Your task to perform on an android device: turn off improve location accuracy Image 0: 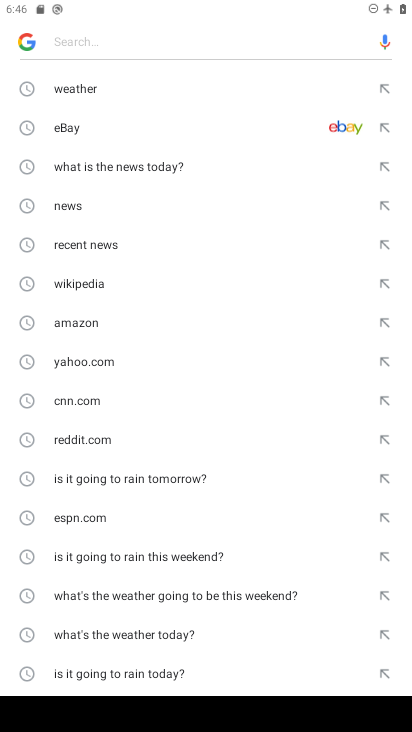
Step 0: press home button
Your task to perform on an android device: turn off improve location accuracy Image 1: 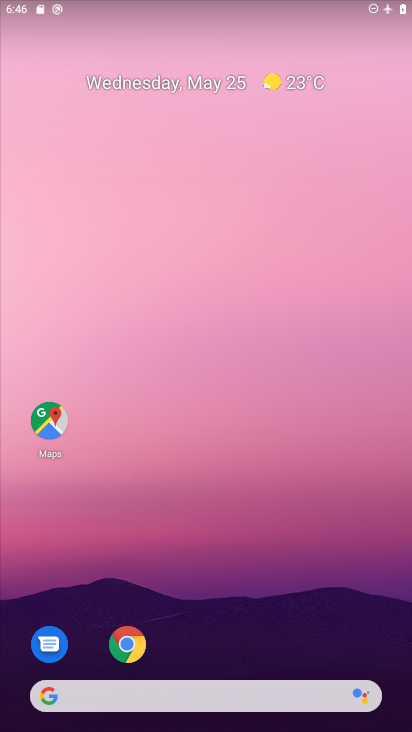
Step 1: drag from (355, 652) to (264, 38)
Your task to perform on an android device: turn off improve location accuracy Image 2: 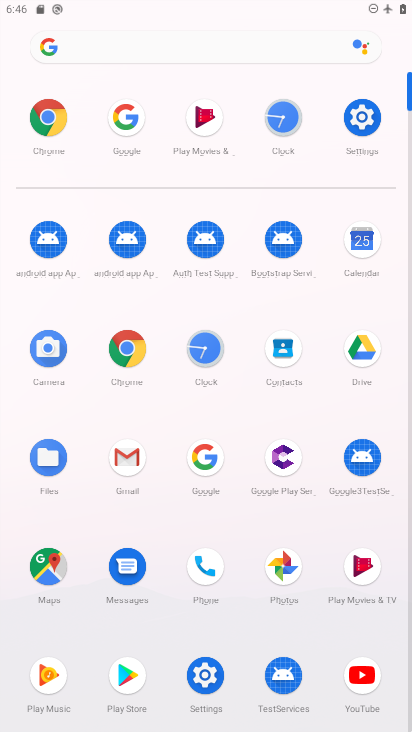
Step 2: click (366, 124)
Your task to perform on an android device: turn off improve location accuracy Image 3: 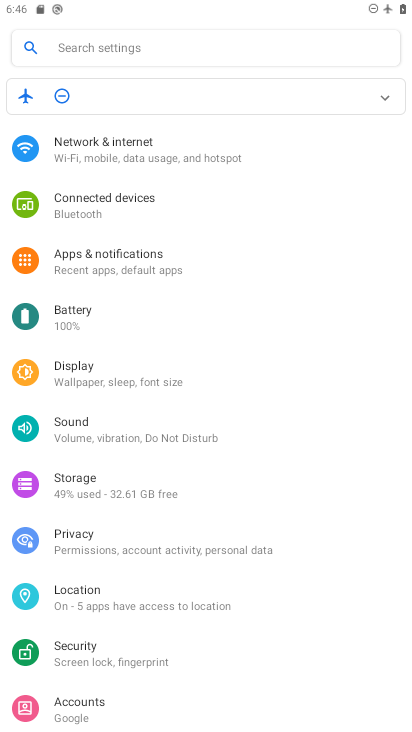
Step 3: click (120, 594)
Your task to perform on an android device: turn off improve location accuracy Image 4: 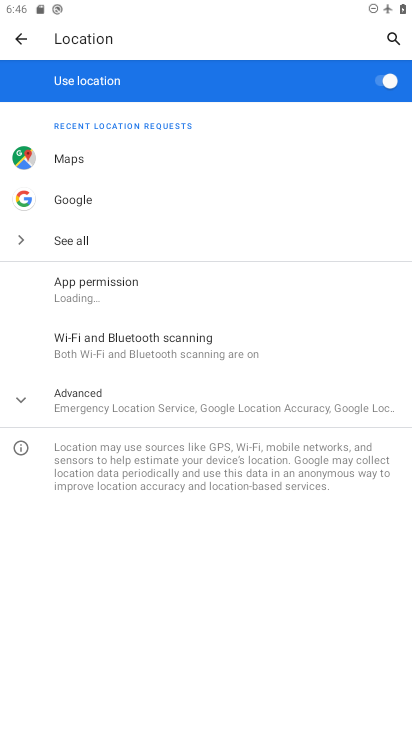
Step 4: click (190, 381)
Your task to perform on an android device: turn off improve location accuracy Image 5: 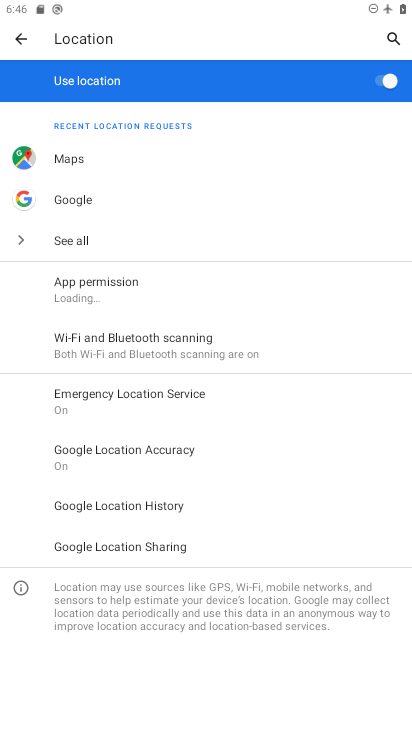
Step 5: click (128, 432)
Your task to perform on an android device: turn off improve location accuracy Image 6: 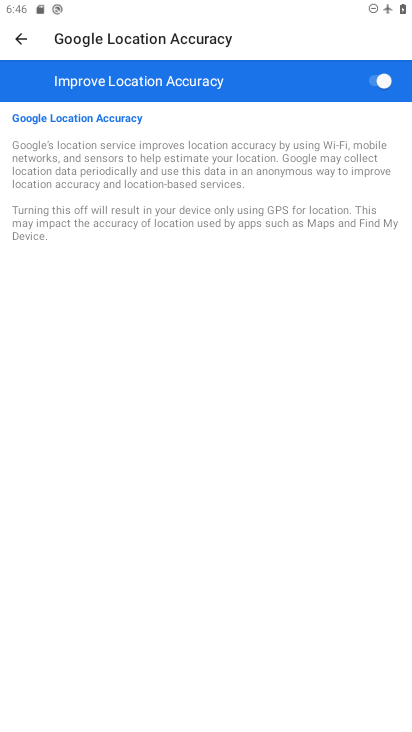
Step 6: click (354, 91)
Your task to perform on an android device: turn off improve location accuracy Image 7: 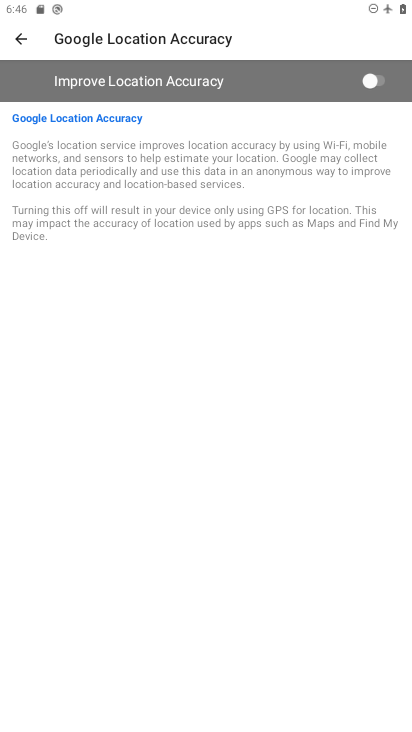
Step 7: task complete